Your task to perform on an android device: toggle location history Image 0: 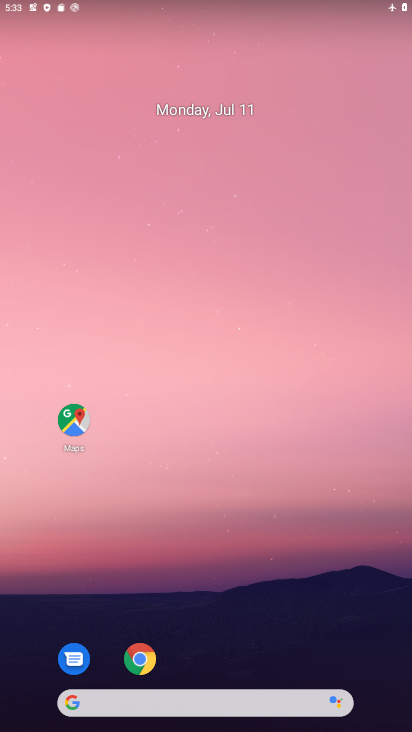
Step 0: click (76, 421)
Your task to perform on an android device: toggle location history Image 1: 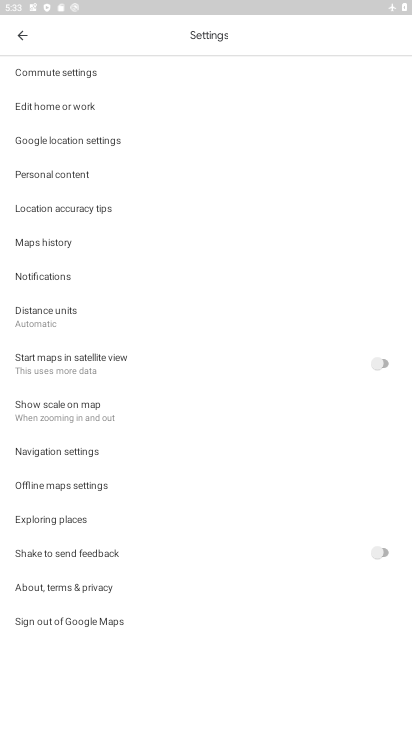
Step 1: click (54, 173)
Your task to perform on an android device: toggle location history Image 2: 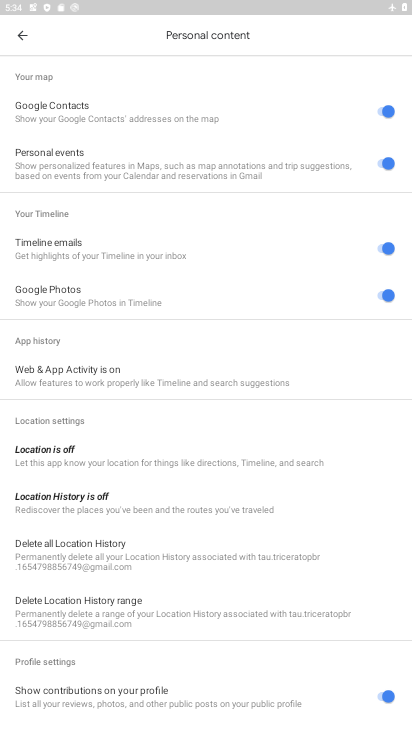
Step 2: click (56, 496)
Your task to perform on an android device: toggle location history Image 3: 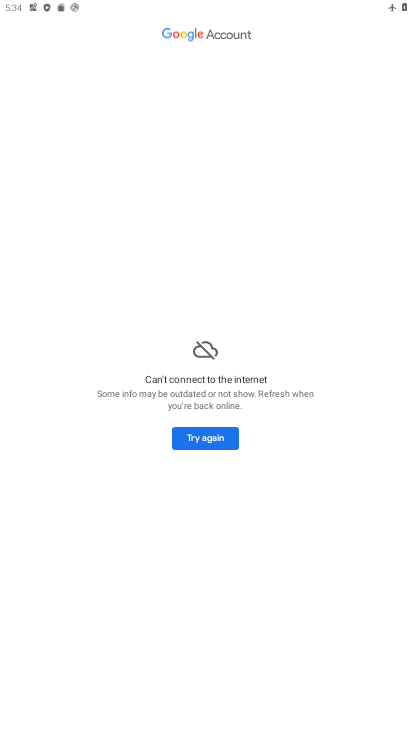
Step 3: click (202, 440)
Your task to perform on an android device: toggle location history Image 4: 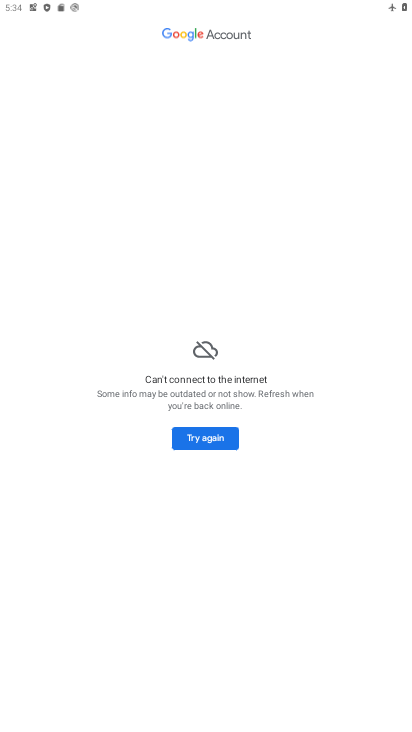
Step 4: task complete